Your task to perform on an android device: turn notification dots on Image 0: 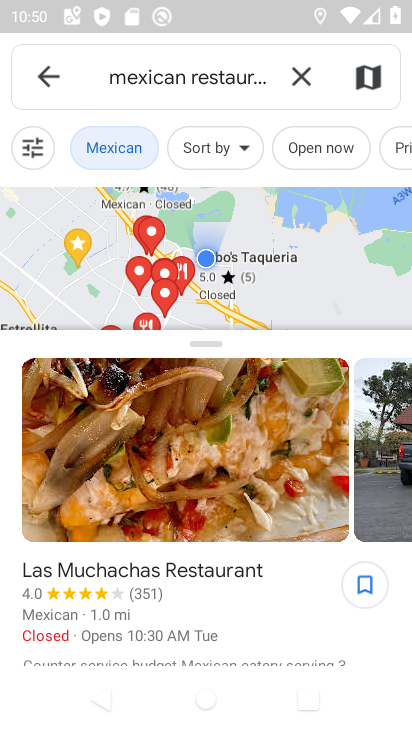
Step 0: press home button
Your task to perform on an android device: turn notification dots on Image 1: 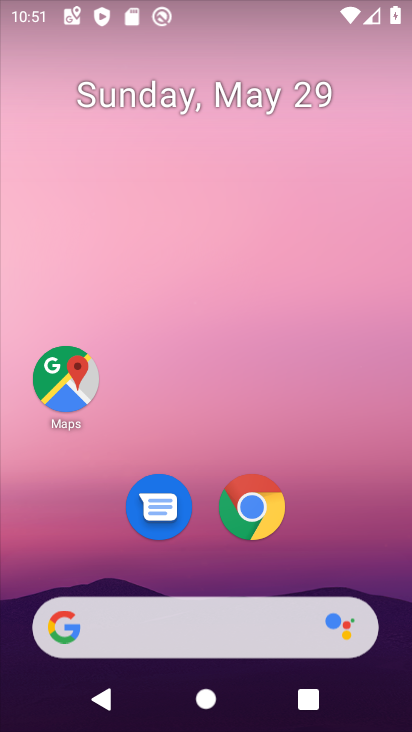
Step 1: drag from (367, 557) to (304, 55)
Your task to perform on an android device: turn notification dots on Image 2: 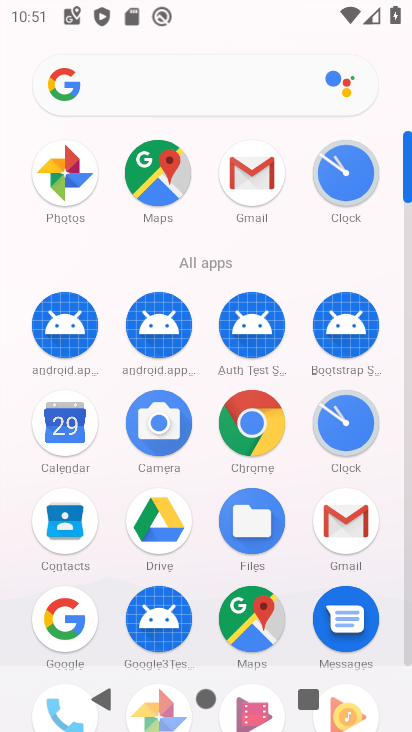
Step 2: click (407, 613)
Your task to perform on an android device: turn notification dots on Image 3: 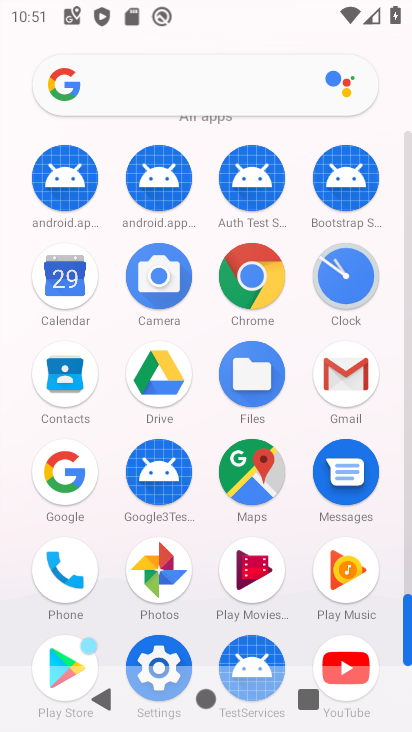
Step 3: click (162, 655)
Your task to perform on an android device: turn notification dots on Image 4: 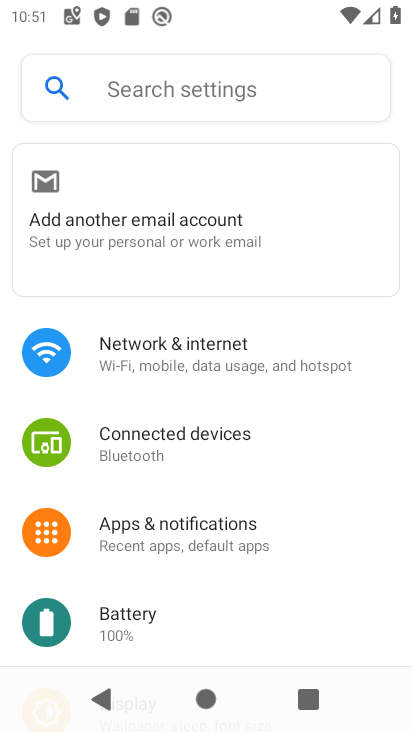
Step 4: click (200, 549)
Your task to perform on an android device: turn notification dots on Image 5: 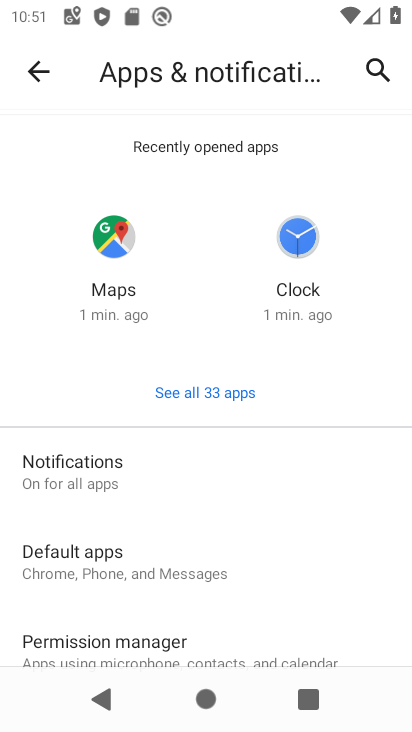
Step 5: click (180, 476)
Your task to perform on an android device: turn notification dots on Image 6: 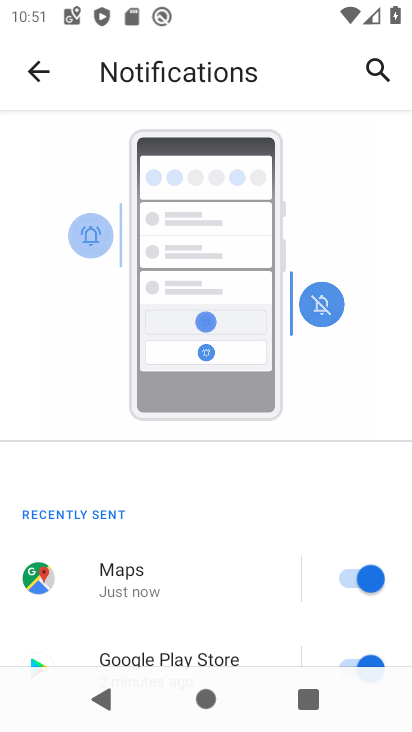
Step 6: drag from (250, 614) to (200, 60)
Your task to perform on an android device: turn notification dots on Image 7: 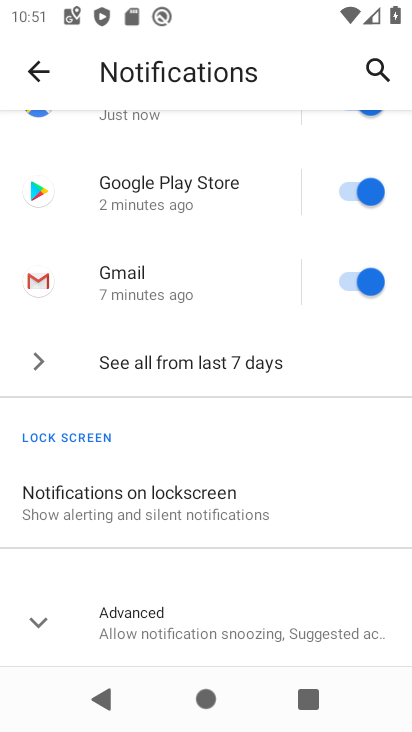
Step 7: click (271, 623)
Your task to perform on an android device: turn notification dots on Image 8: 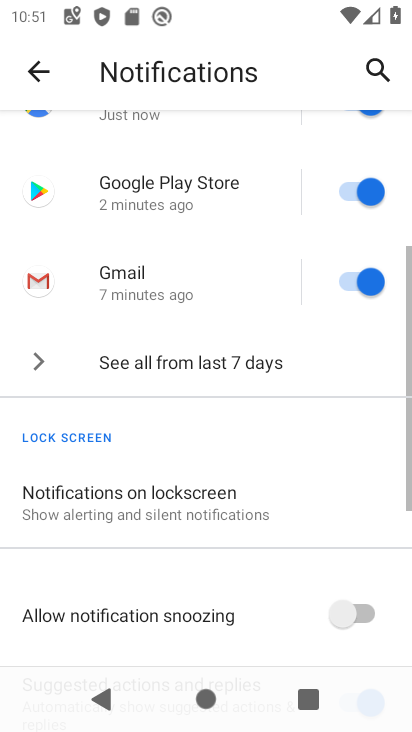
Step 8: task complete